Your task to perform on an android device: find which apps use the phone's location Image 0: 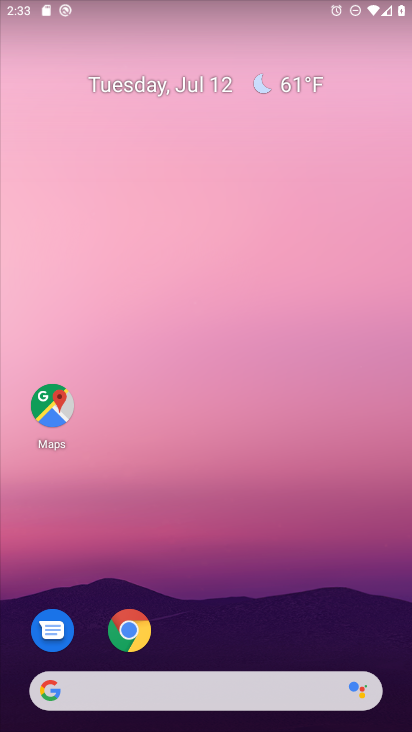
Step 0: drag from (195, 620) to (195, 97)
Your task to perform on an android device: find which apps use the phone's location Image 1: 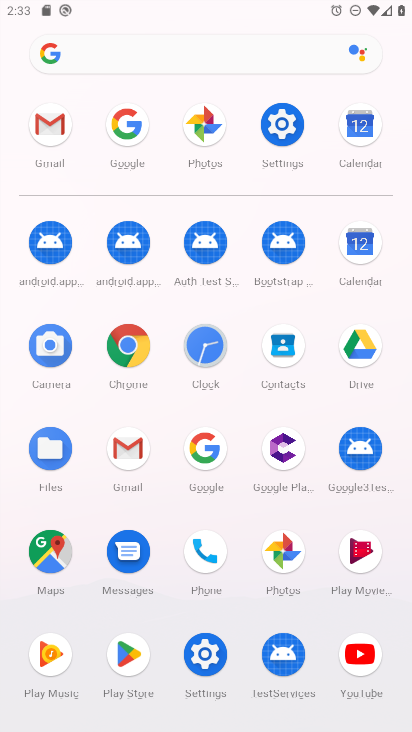
Step 1: click (265, 116)
Your task to perform on an android device: find which apps use the phone's location Image 2: 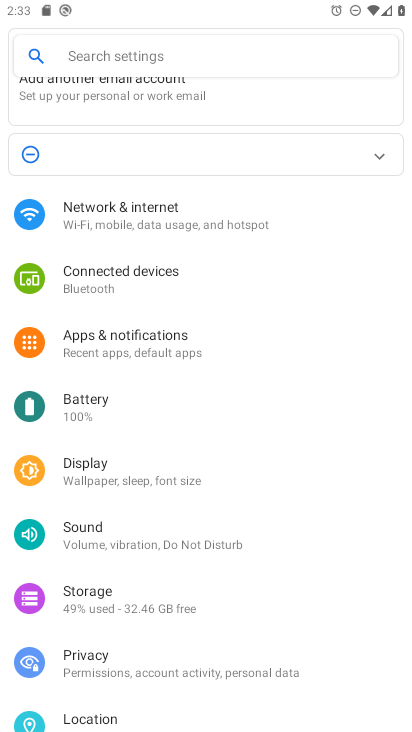
Step 2: click (126, 719)
Your task to perform on an android device: find which apps use the phone's location Image 3: 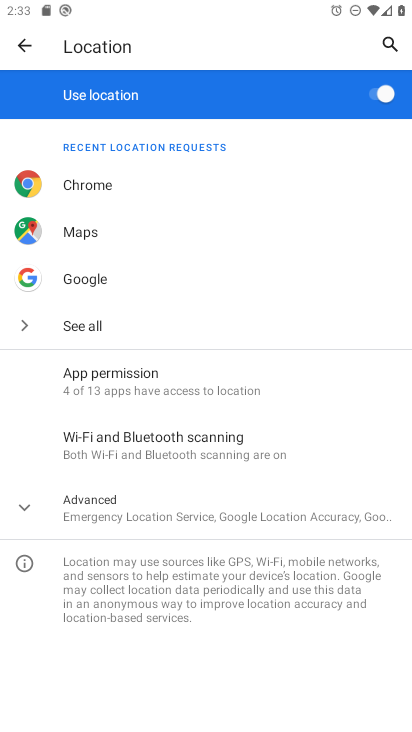
Step 3: click (170, 377)
Your task to perform on an android device: find which apps use the phone's location Image 4: 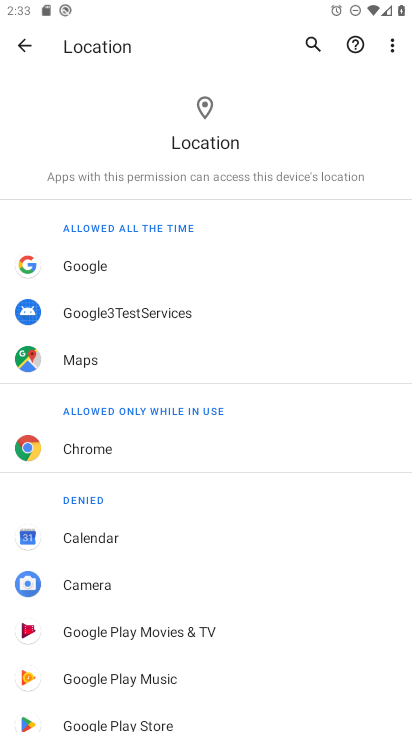
Step 4: task complete